Your task to perform on an android device: Search for Mexican restaurants on Maps Image 0: 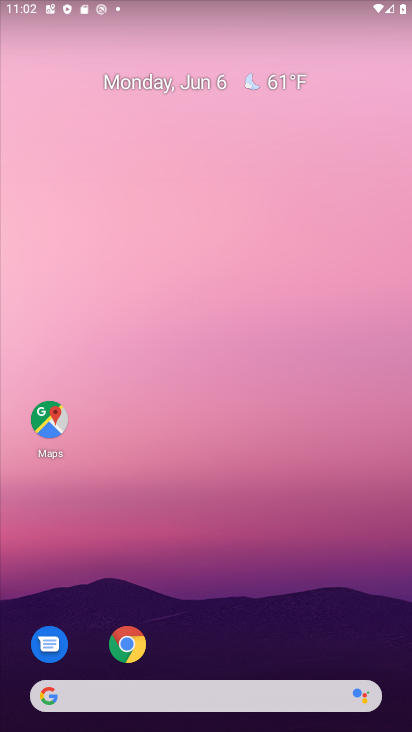
Step 0: drag from (230, 657) to (311, 242)
Your task to perform on an android device: Search for Mexican restaurants on Maps Image 1: 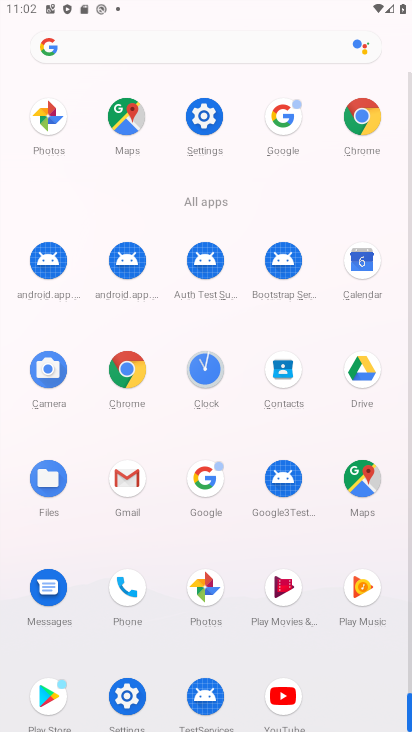
Step 1: click (361, 492)
Your task to perform on an android device: Search for Mexican restaurants on Maps Image 2: 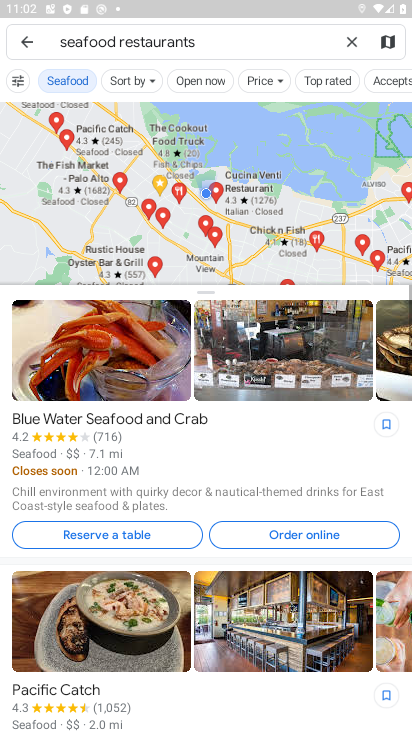
Step 2: click (352, 46)
Your task to perform on an android device: Search for Mexican restaurants on Maps Image 3: 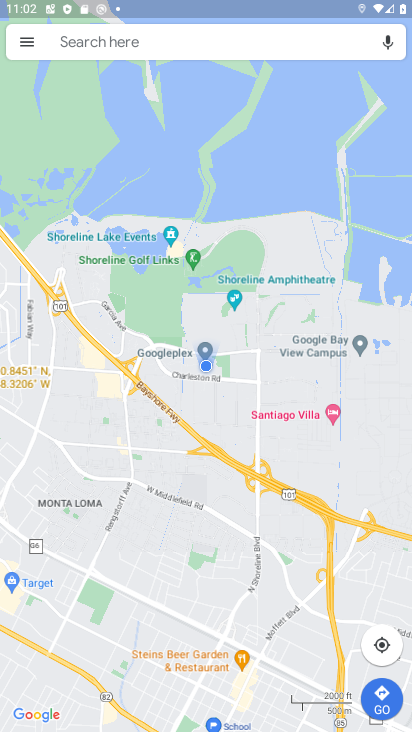
Step 3: click (314, 37)
Your task to perform on an android device: Search for Mexican restaurants on Maps Image 4: 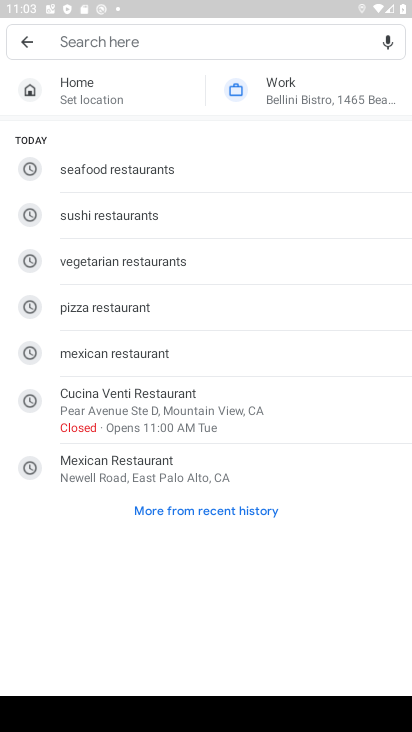
Step 4: click (158, 355)
Your task to perform on an android device: Search for Mexican restaurants on Maps Image 5: 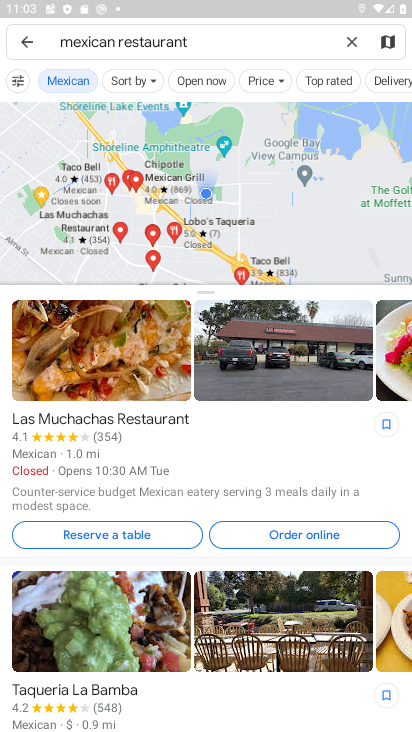
Step 5: task complete